Your task to perform on an android device: Go to network settings Image 0: 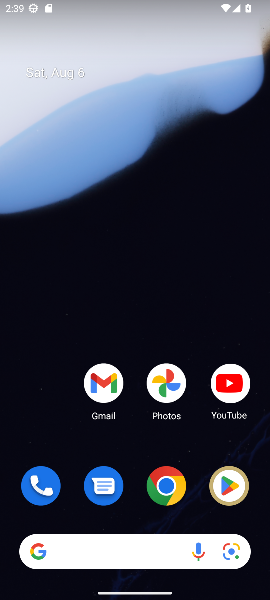
Step 0: press home button
Your task to perform on an android device: Go to network settings Image 1: 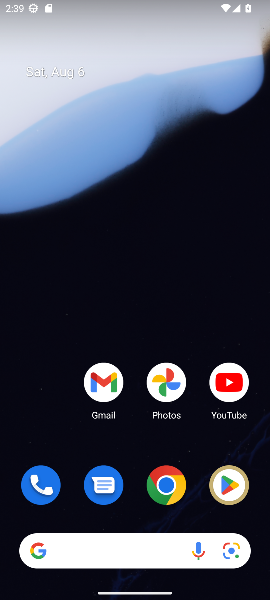
Step 1: drag from (134, 458) to (146, 29)
Your task to perform on an android device: Go to network settings Image 2: 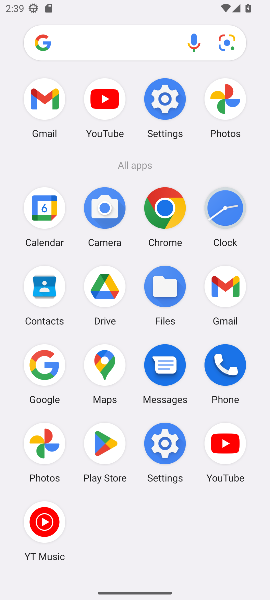
Step 2: click (161, 94)
Your task to perform on an android device: Go to network settings Image 3: 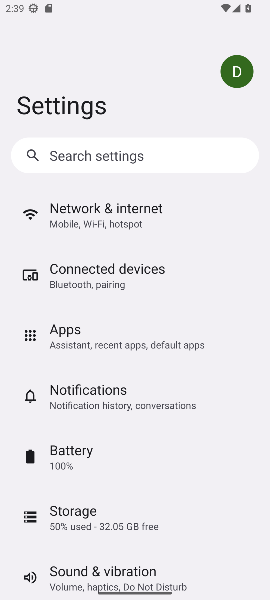
Step 3: click (149, 219)
Your task to perform on an android device: Go to network settings Image 4: 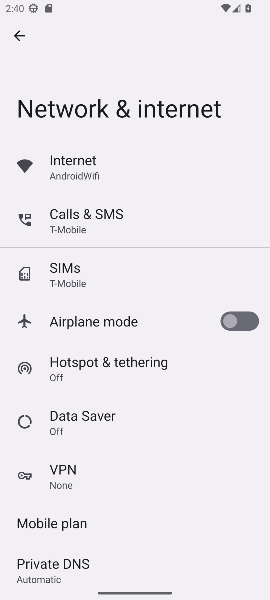
Step 4: task complete